Your task to perform on an android device: open a bookmark in the chrome app Image 0: 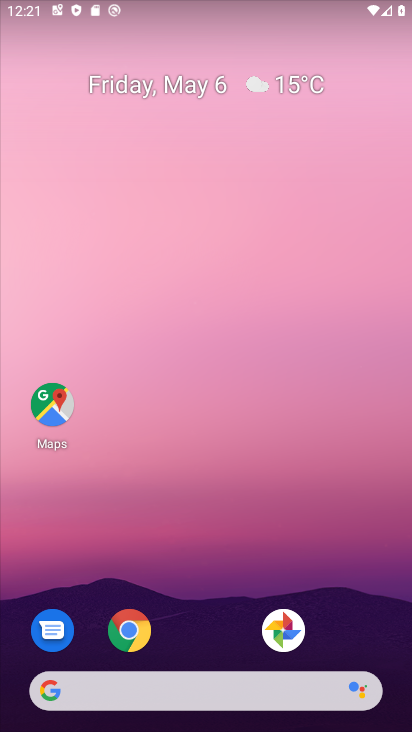
Step 0: click (126, 635)
Your task to perform on an android device: open a bookmark in the chrome app Image 1: 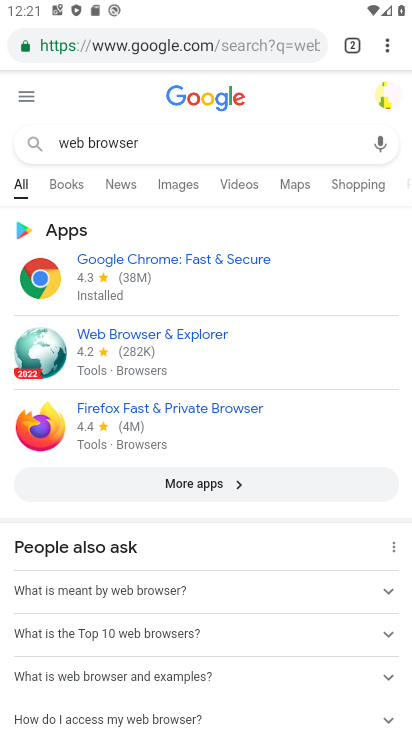
Step 1: drag from (380, 46) to (235, 497)
Your task to perform on an android device: open a bookmark in the chrome app Image 2: 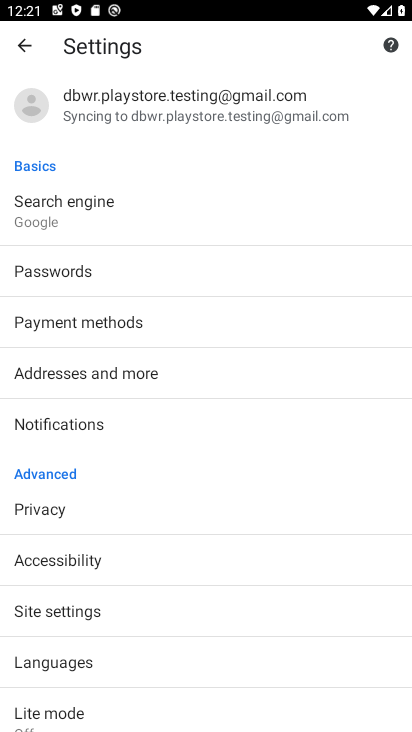
Step 2: click (14, 49)
Your task to perform on an android device: open a bookmark in the chrome app Image 3: 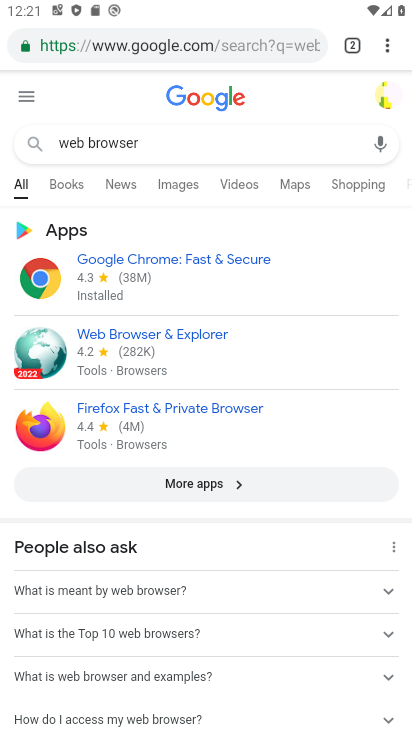
Step 3: task complete